Your task to perform on an android device: Open network settings Image 0: 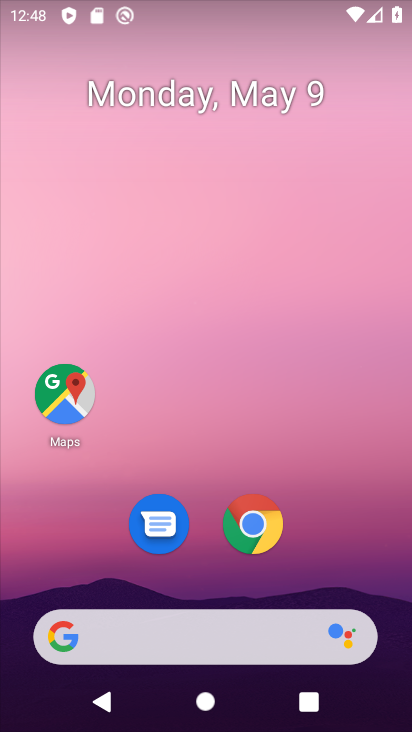
Step 0: drag from (334, 533) to (397, 34)
Your task to perform on an android device: Open network settings Image 1: 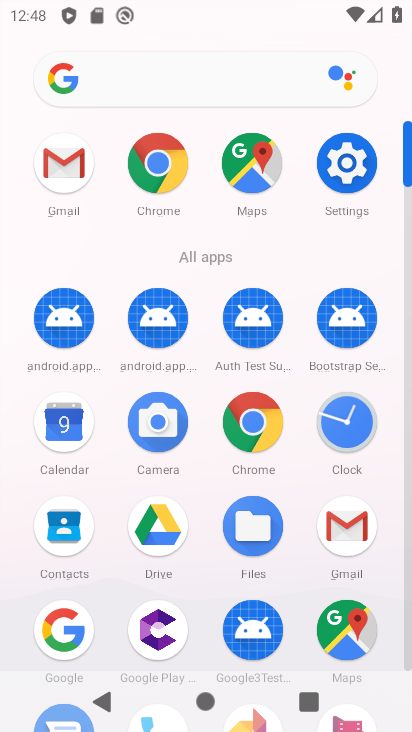
Step 1: click (341, 166)
Your task to perform on an android device: Open network settings Image 2: 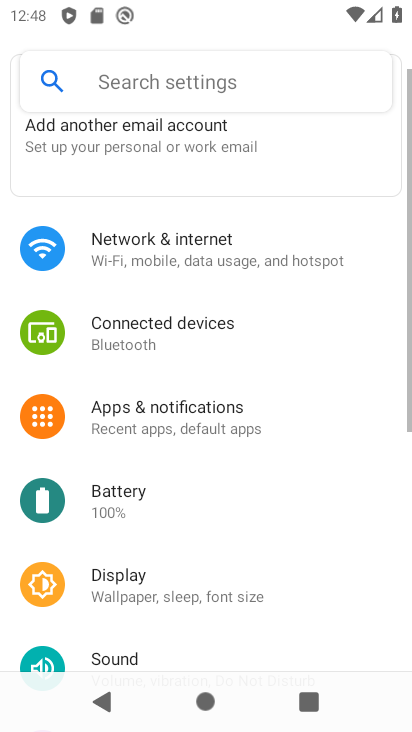
Step 2: drag from (281, 239) to (243, 429)
Your task to perform on an android device: Open network settings Image 3: 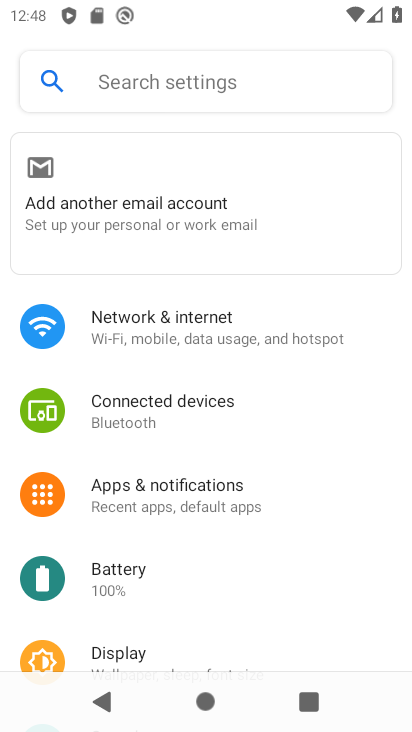
Step 3: click (231, 320)
Your task to perform on an android device: Open network settings Image 4: 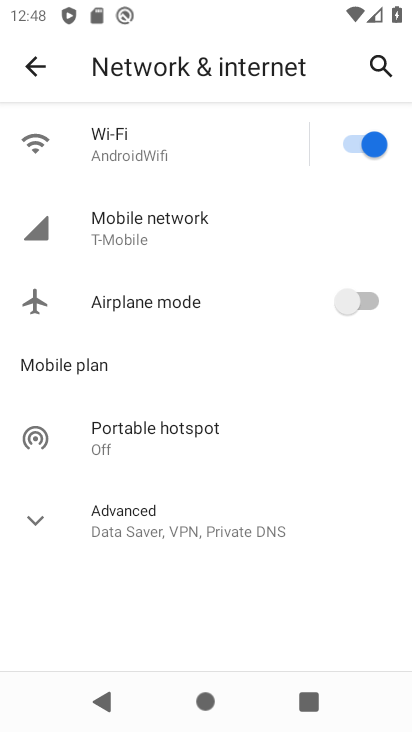
Step 4: task complete